Your task to perform on an android device: Google the capital of Argentina Image 0: 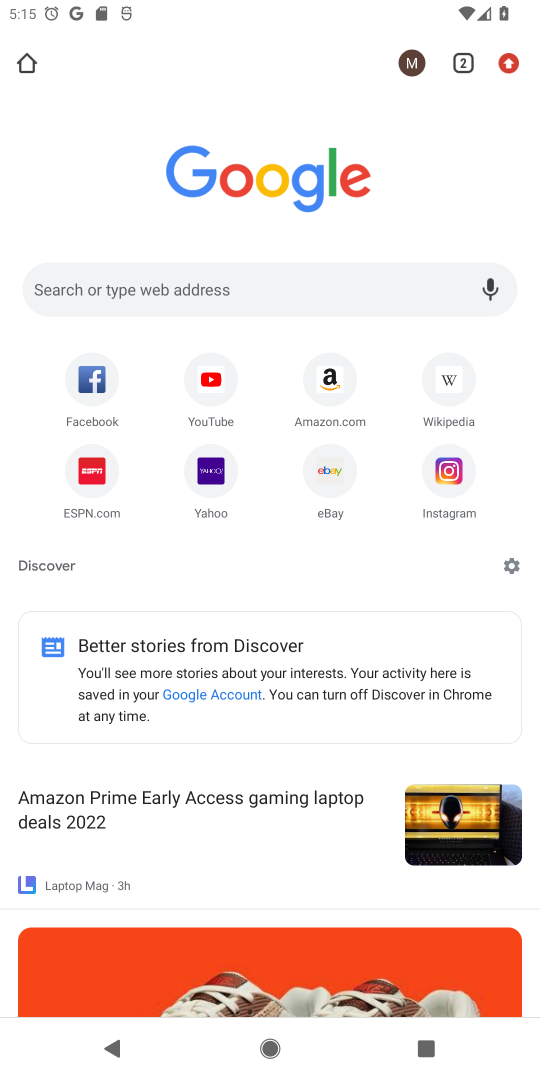
Step 0: click (368, 303)
Your task to perform on an android device: Google the capital of Argentina Image 1: 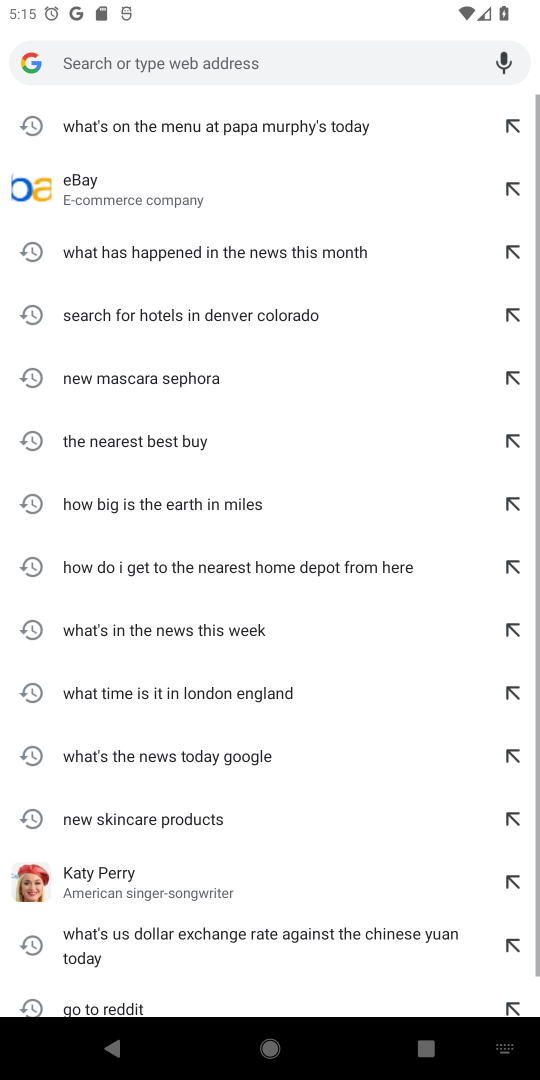
Step 1: type "Google the capital of Argentina"
Your task to perform on an android device: Google the capital of Argentina Image 2: 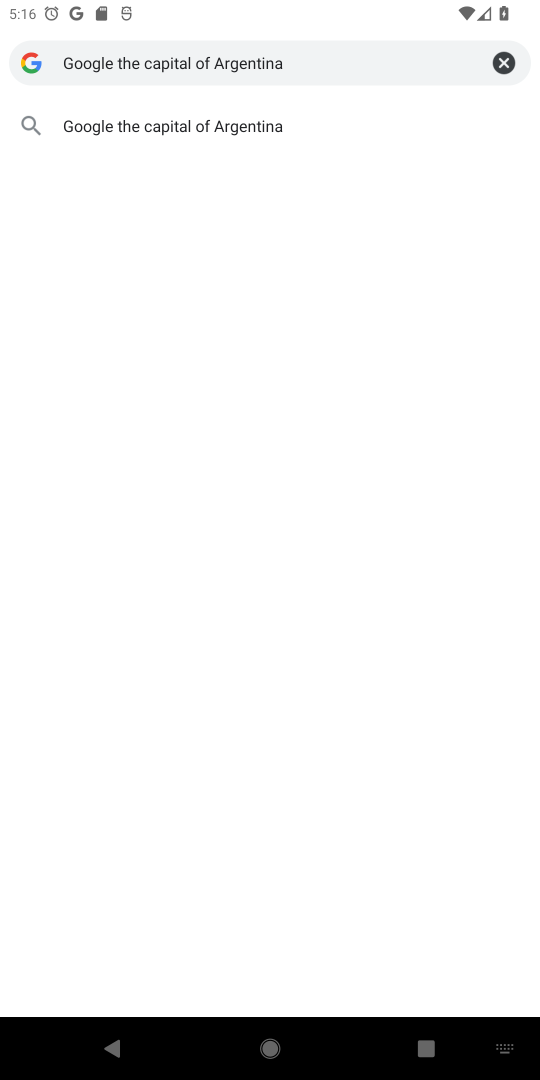
Step 2: click (249, 134)
Your task to perform on an android device: Google the capital of Argentina Image 3: 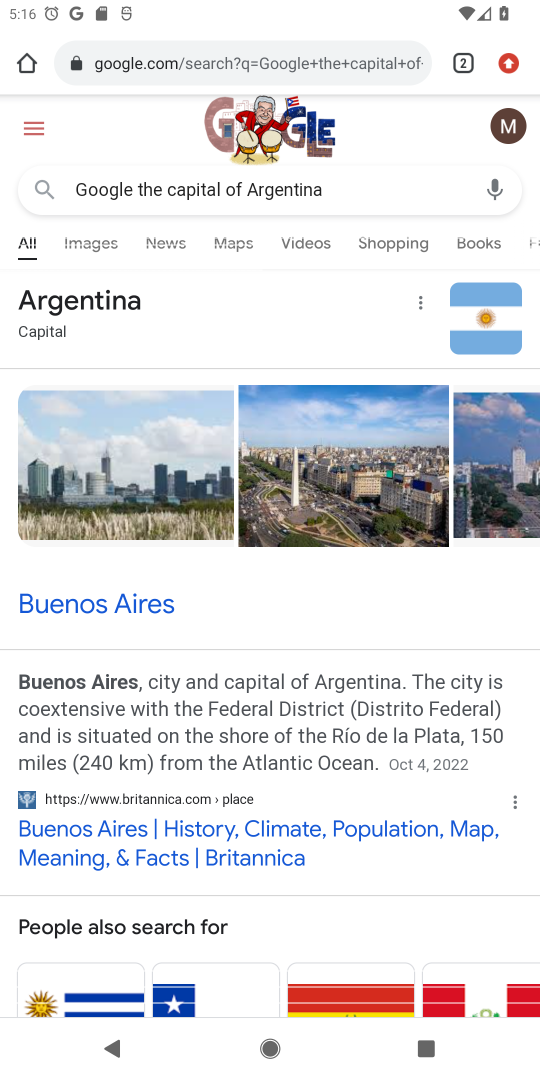
Step 3: task complete